Your task to perform on an android device: turn on airplane mode Image 0: 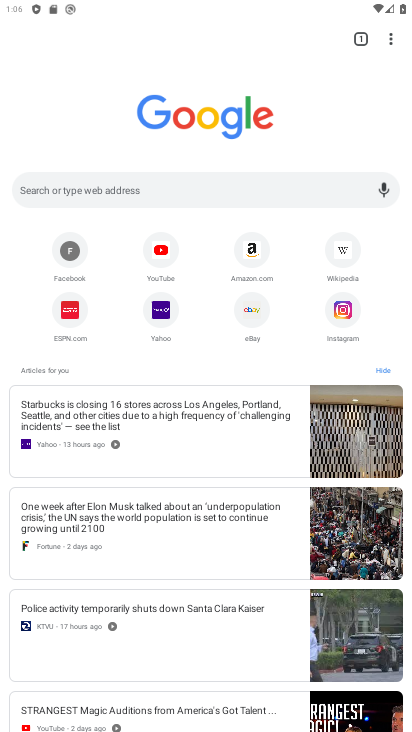
Step 0: press home button
Your task to perform on an android device: turn on airplane mode Image 1: 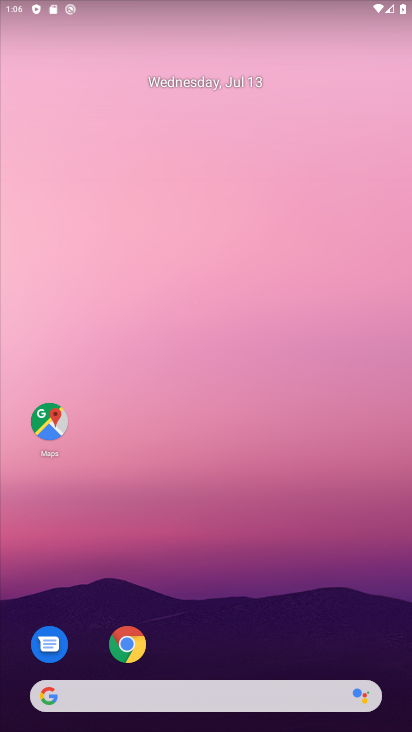
Step 1: drag from (271, 614) to (237, 40)
Your task to perform on an android device: turn on airplane mode Image 2: 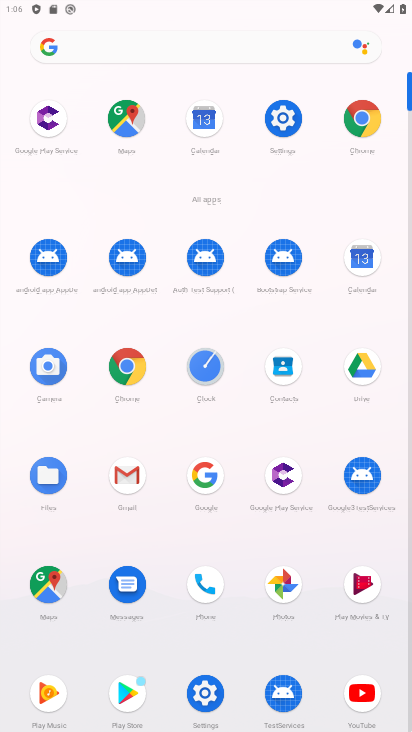
Step 2: drag from (309, 8) to (280, 545)
Your task to perform on an android device: turn on airplane mode Image 3: 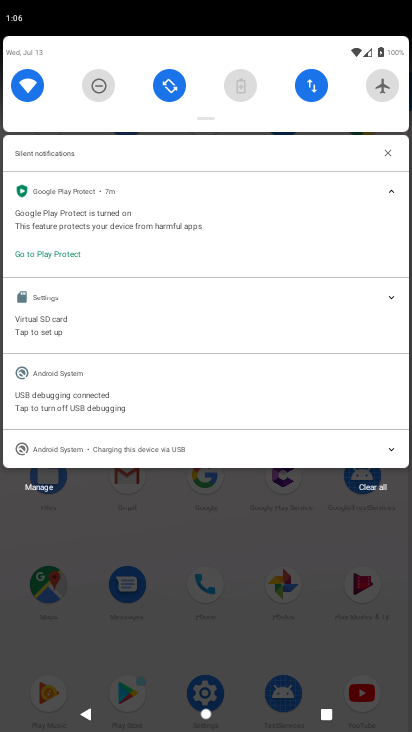
Step 3: click (383, 83)
Your task to perform on an android device: turn on airplane mode Image 4: 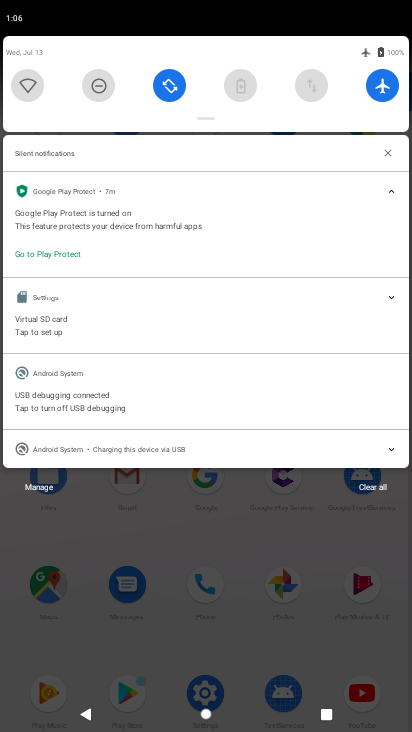
Step 4: task complete